Your task to perform on an android device: Check the news Image 0: 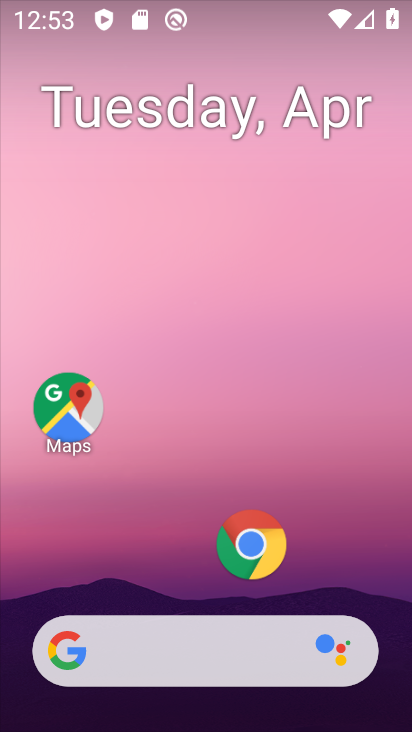
Step 0: drag from (167, 578) to (207, 190)
Your task to perform on an android device: Check the news Image 1: 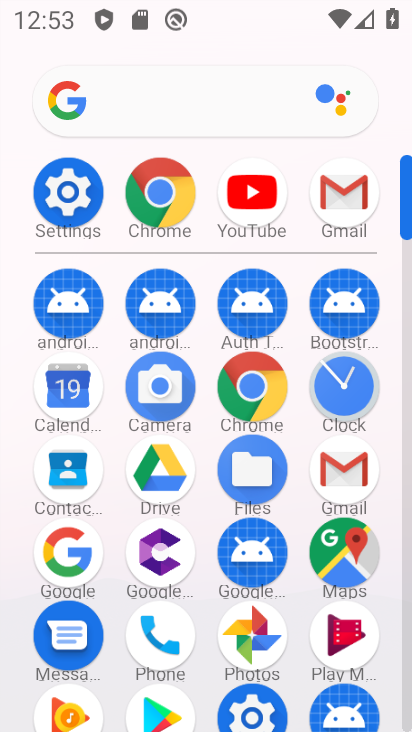
Step 1: click (247, 386)
Your task to perform on an android device: Check the news Image 2: 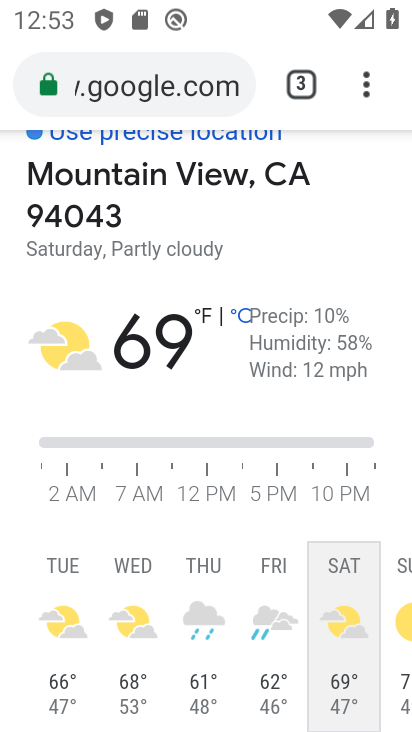
Step 2: click (365, 77)
Your task to perform on an android device: Check the news Image 3: 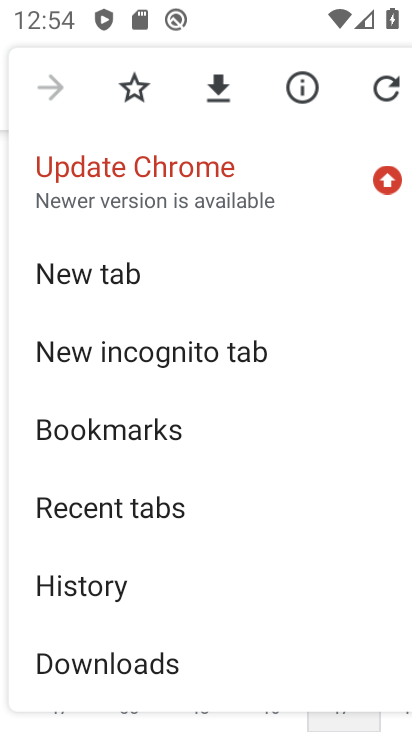
Step 3: click (109, 269)
Your task to perform on an android device: Check the news Image 4: 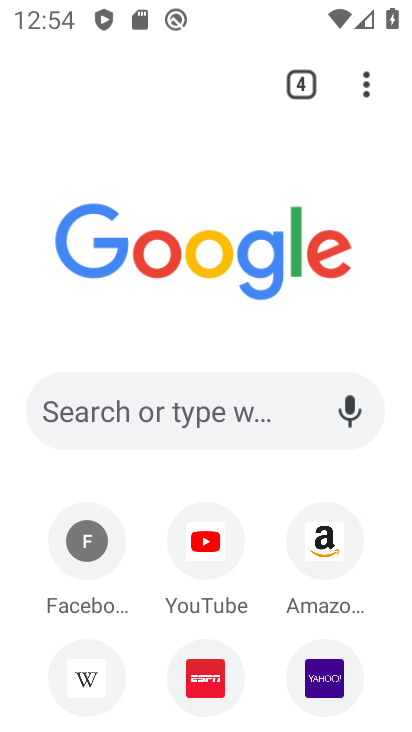
Step 4: click (215, 414)
Your task to perform on an android device: Check the news Image 5: 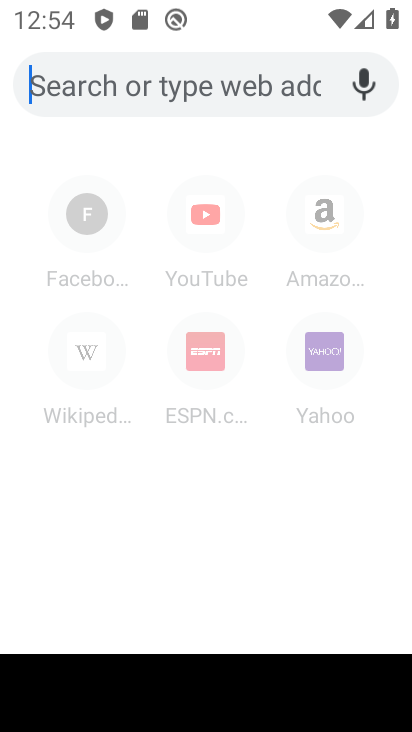
Step 5: type " news"
Your task to perform on an android device: Check the news Image 6: 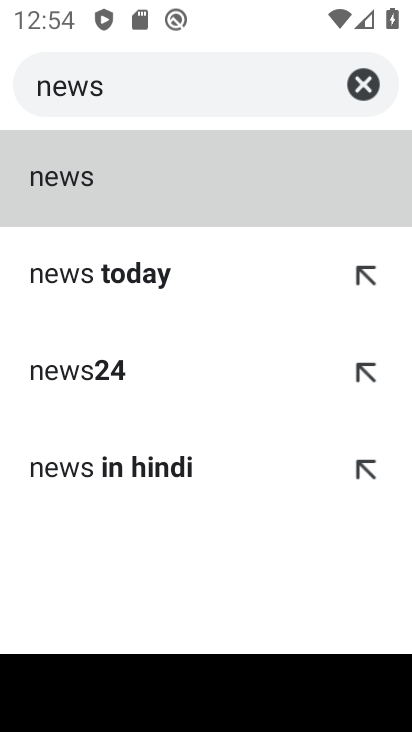
Step 6: click (164, 281)
Your task to perform on an android device: Check the news Image 7: 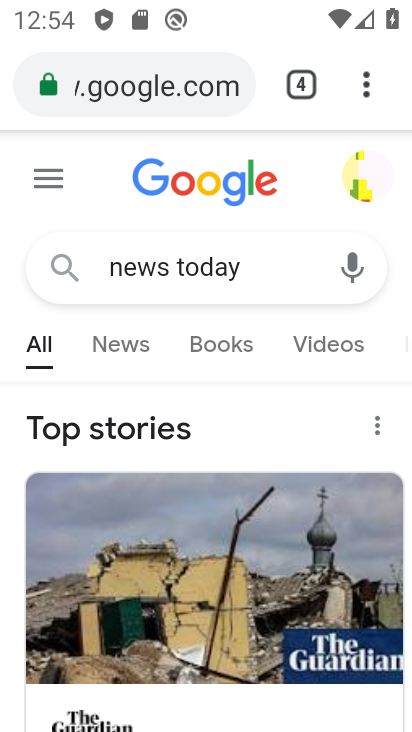
Step 7: click (212, 607)
Your task to perform on an android device: Check the news Image 8: 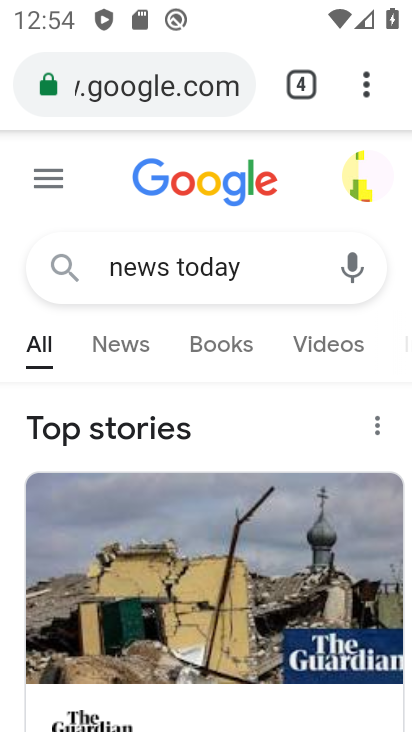
Step 8: task complete